Your task to perform on an android device: allow cookies in the chrome app Image 0: 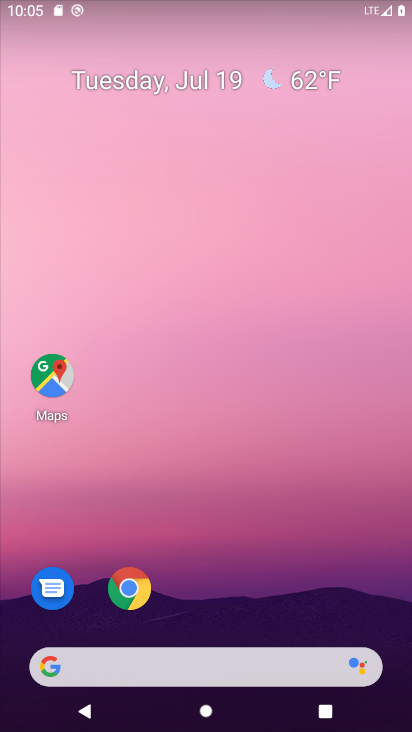
Step 0: click (126, 584)
Your task to perform on an android device: allow cookies in the chrome app Image 1: 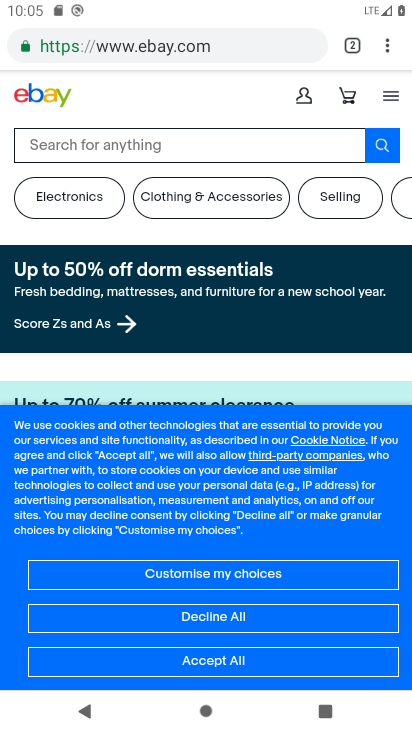
Step 1: click (386, 52)
Your task to perform on an android device: allow cookies in the chrome app Image 2: 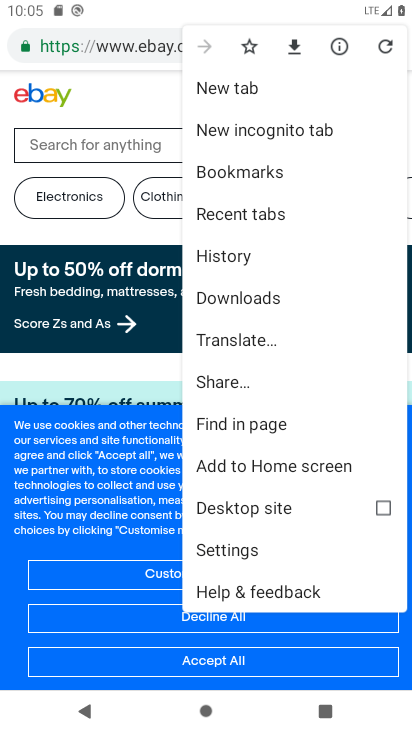
Step 2: click (222, 549)
Your task to perform on an android device: allow cookies in the chrome app Image 3: 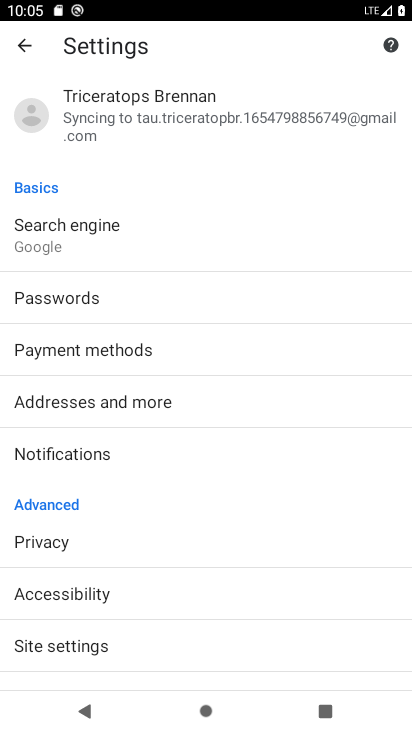
Step 3: click (57, 641)
Your task to perform on an android device: allow cookies in the chrome app Image 4: 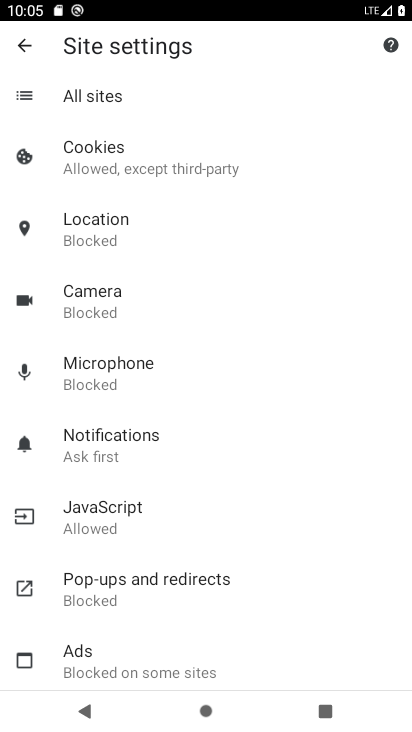
Step 4: click (117, 162)
Your task to perform on an android device: allow cookies in the chrome app Image 5: 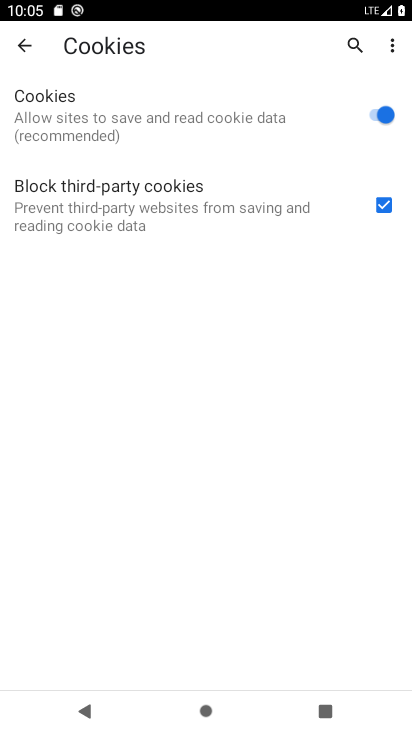
Step 5: task complete